Your task to perform on an android device: Open Chrome and go to settings Image 0: 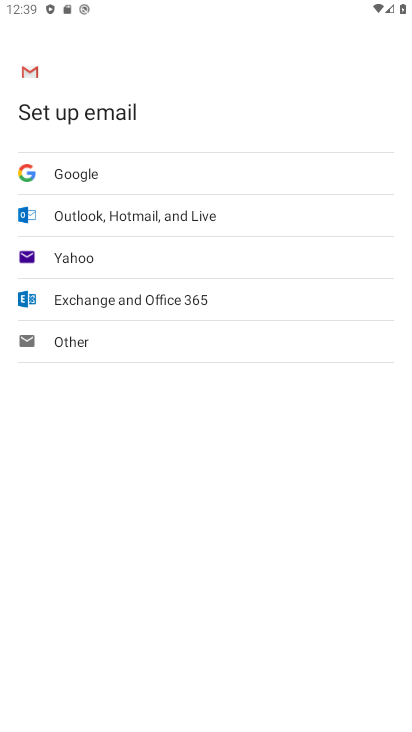
Step 0: press home button
Your task to perform on an android device: Open Chrome and go to settings Image 1: 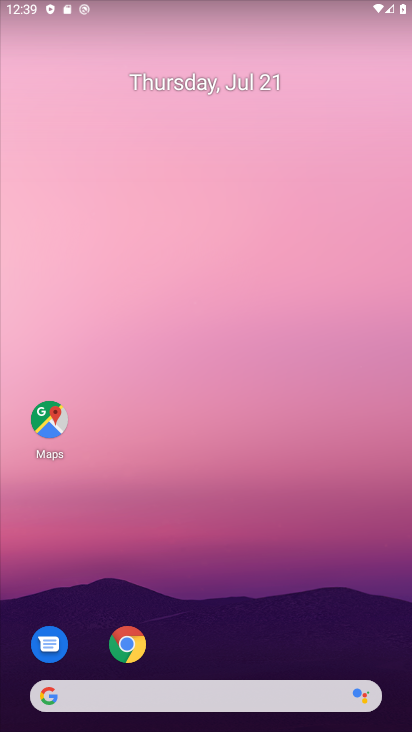
Step 1: drag from (220, 634) to (276, 83)
Your task to perform on an android device: Open Chrome and go to settings Image 2: 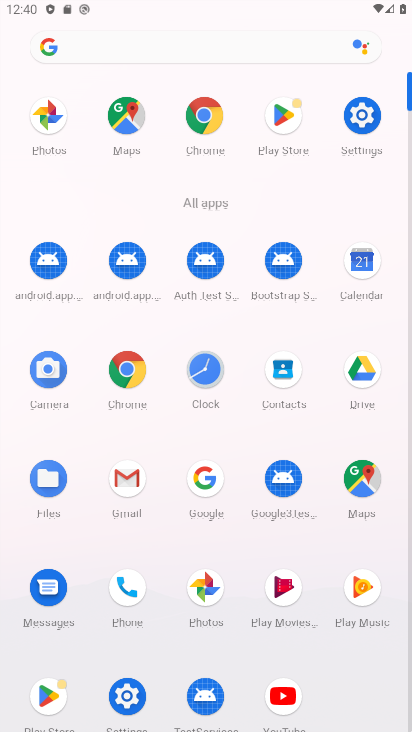
Step 2: click (117, 363)
Your task to perform on an android device: Open Chrome and go to settings Image 3: 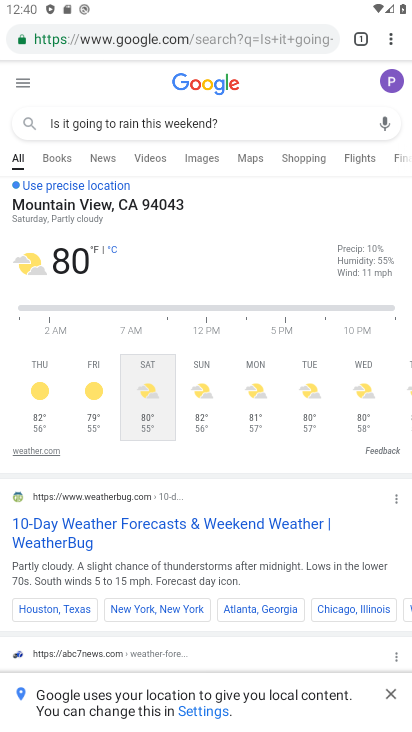
Step 3: task complete